Your task to perform on an android device: Open the calendar app, open the side menu, and click the "Day" option Image 0: 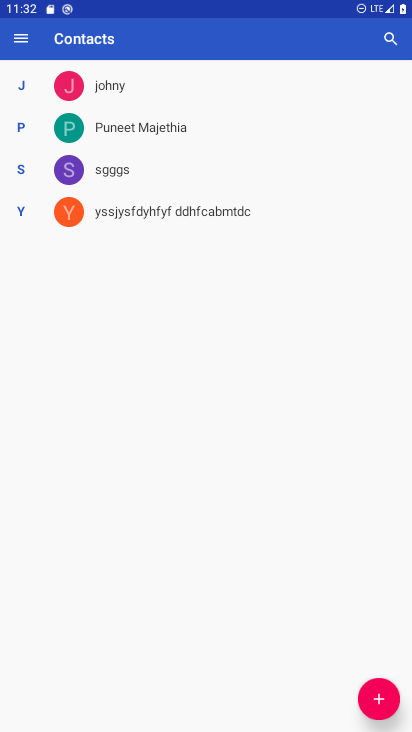
Step 0: press home button
Your task to perform on an android device: Open the calendar app, open the side menu, and click the "Day" option Image 1: 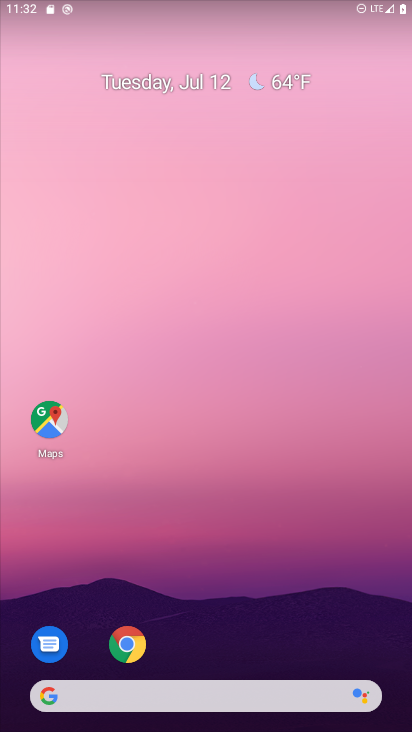
Step 1: drag from (224, 638) to (232, 124)
Your task to perform on an android device: Open the calendar app, open the side menu, and click the "Day" option Image 2: 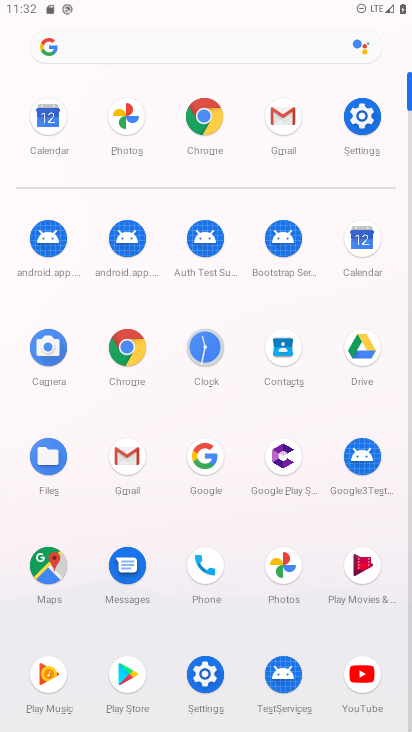
Step 2: click (60, 106)
Your task to perform on an android device: Open the calendar app, open the side menu, and click the "Day" option Image 3: 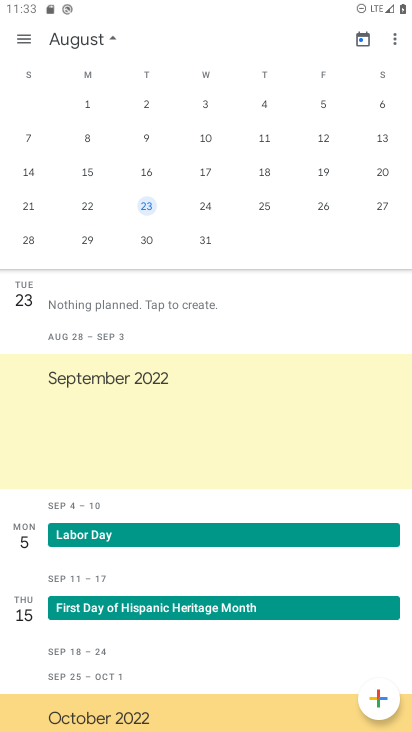
Step 3: click (24, 34)
Your task to perform on an android device: Open the calendar app, open the side menu, and click the "Day" option Image 4: 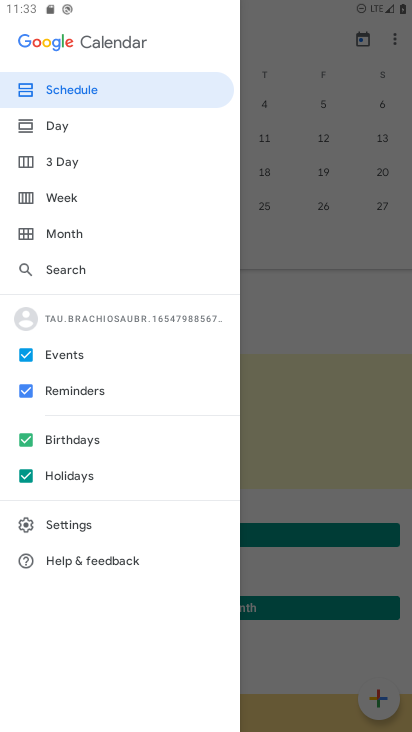
Step 4: click (48, 141)
Your task to perform on an android device: Open the calendar app, open the side menu, and click the "Day" option Image 5: 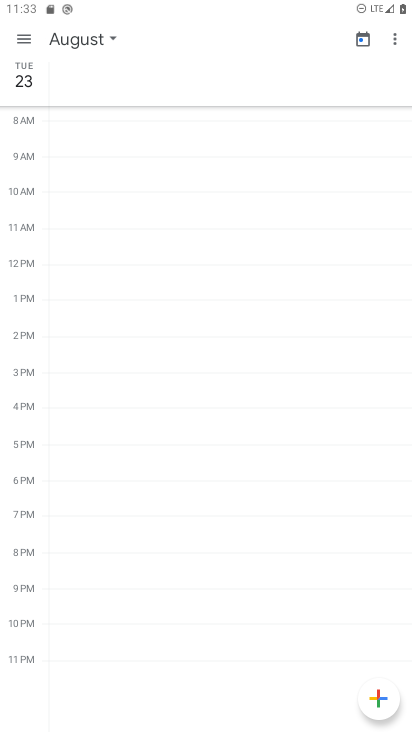
Step 5: task complete